Your task to perform on an android device: find which apps use the phone's location Image 0: 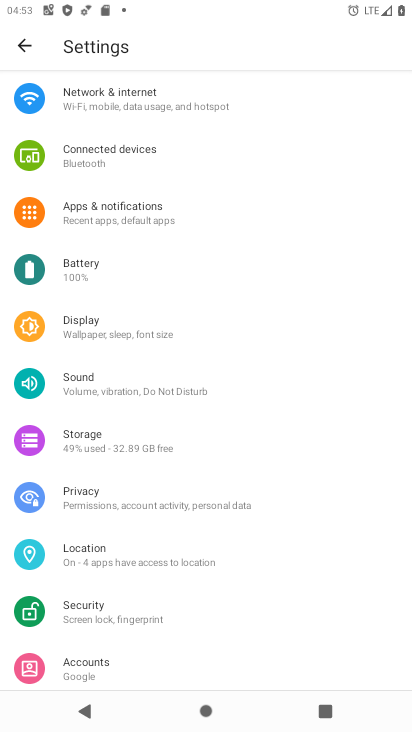
Step 0: drag from (223, 185) to (250, 414)
Your task to perform on an android device: find which apps use the phone's location Image 1: 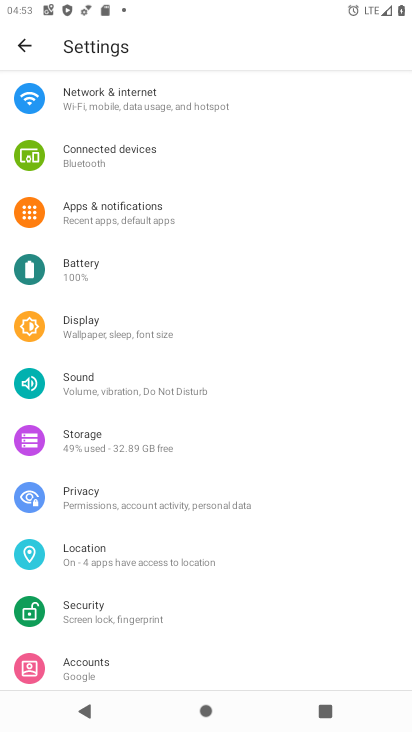
Step 1: click (122, 562)
Your task to perform on an android device: find which apps use the phone's location Image 2: 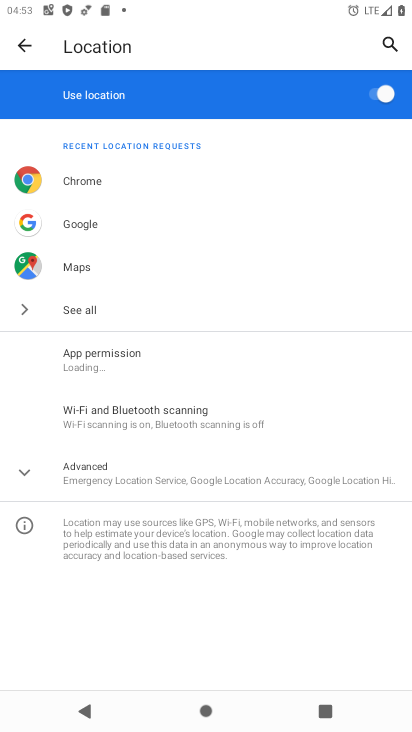
Step 2: click (63, 472)
Your task to perform on an android device: find which apps use the phone's location Image 3: 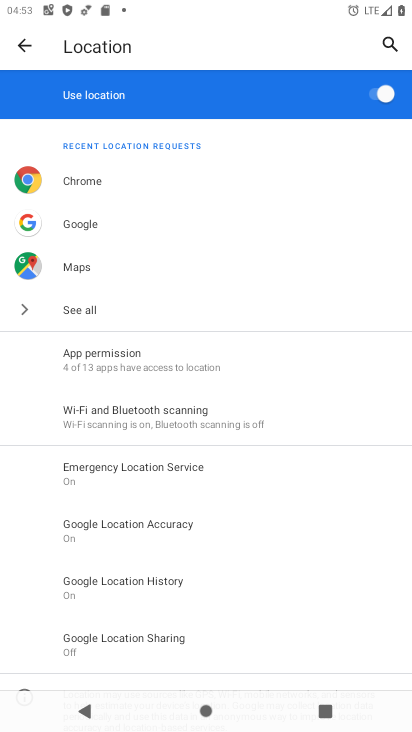
Step 3: drag from (278, 584) to (294, 222)
Your task to perform on an android device: find which apps use the phone's location Image 4: 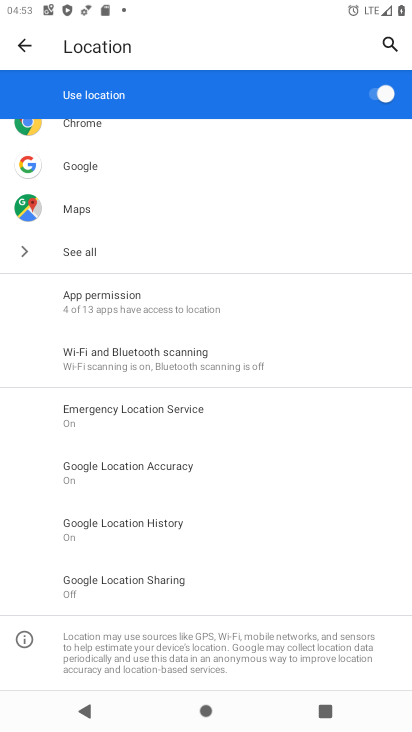
Step 4: click (221, 299)
Your task to perform on an android device: find which apps use the phone's location Image 5: 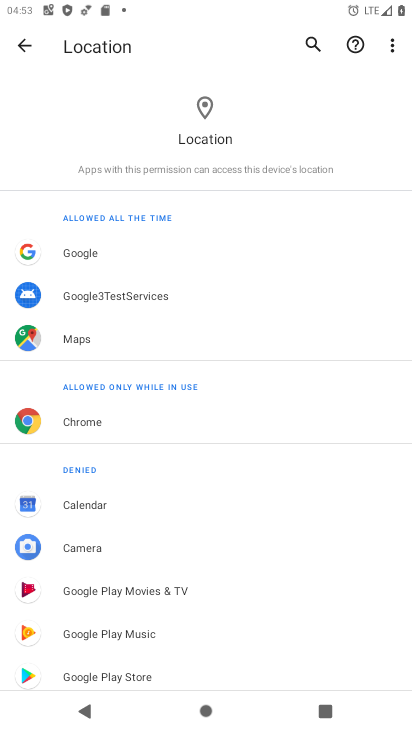
Step 5: task complete